Your task to perform on an android device: Open settings on Google Maps Image 0: 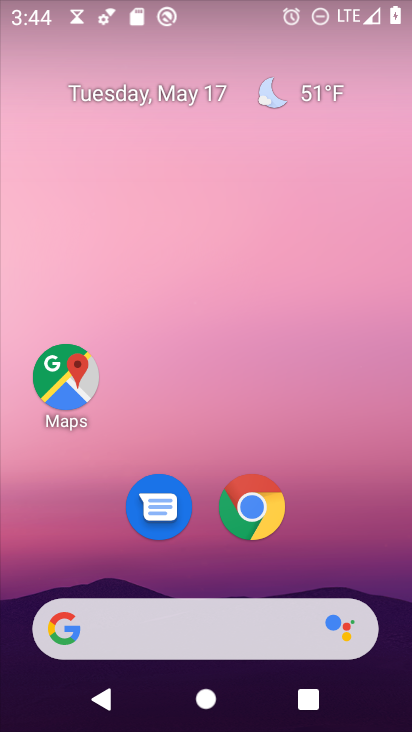
Step 0: click (65, 376)
Your task to perform on an android device: Open settings on Google Maps Image 1: 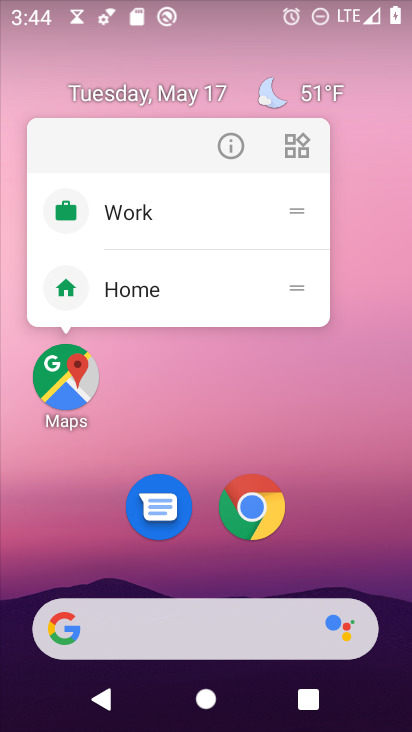
Step 1: click (48, 379)
Your task to perform on an android device: Open settings on Google Maps Image 2: 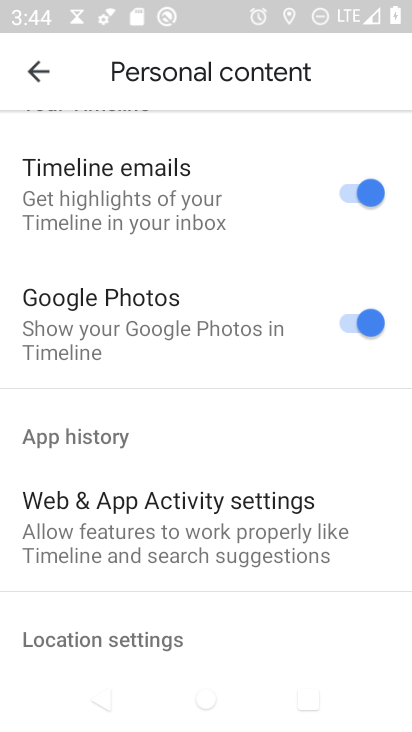
Step 2: click (32, 85)
Your task to perform on an android device: Open settings on Google Maps Image 3: 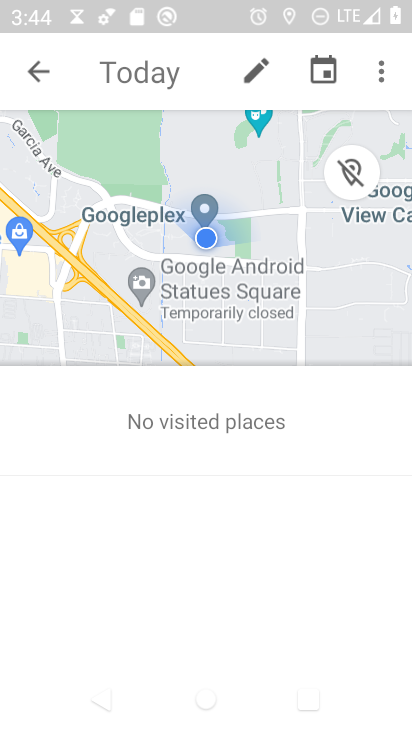
Step 3: click (25, 73)
Your task to perform on an android device: Open settings on Google Maps Image 4: 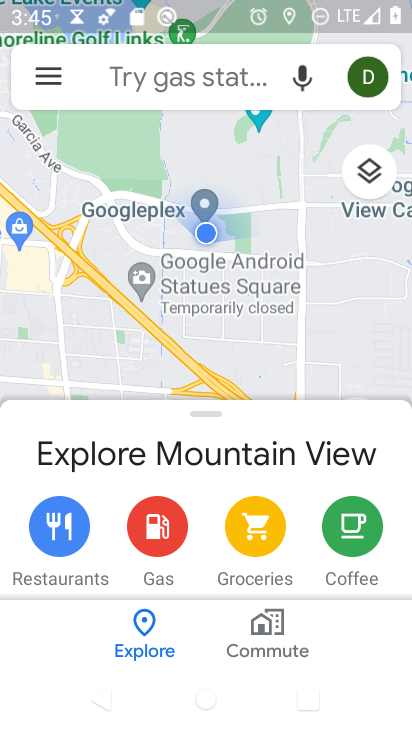
Step 4: click (38, 80)
Your task to perform on an android device: Open settings on Google Maps Image 5: 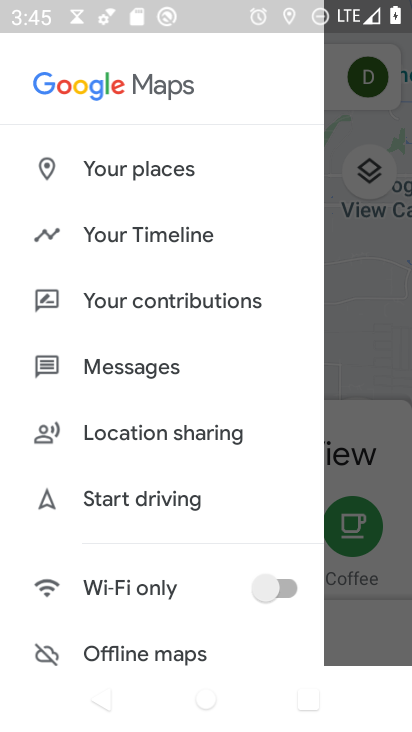
Step 5: drag from (149, 589) to (141, 308)
Your task to perform on an android device: Open settings on Google Maps Image 6: 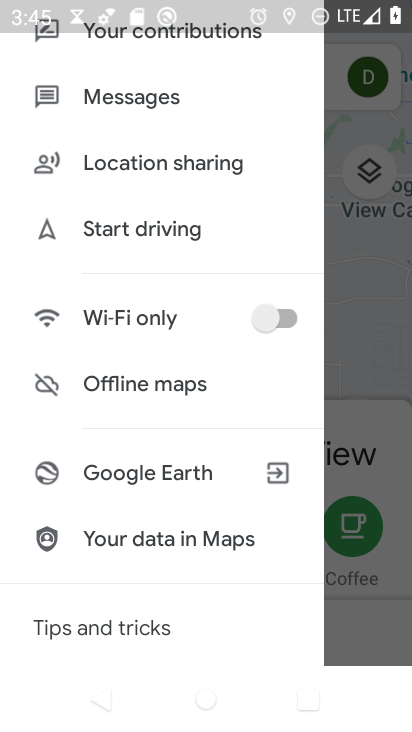
Step 6: drag from (145, 597) to (96, 358)
Your task to perform on an android device: Open settings on Google Maps Image 7: 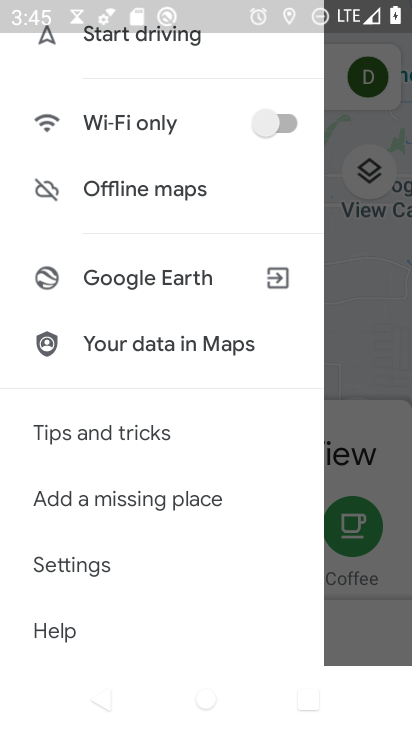
Step 7: click (104, 567)
Your task to perform on an android device: Open settings on Google Maps Image 8: 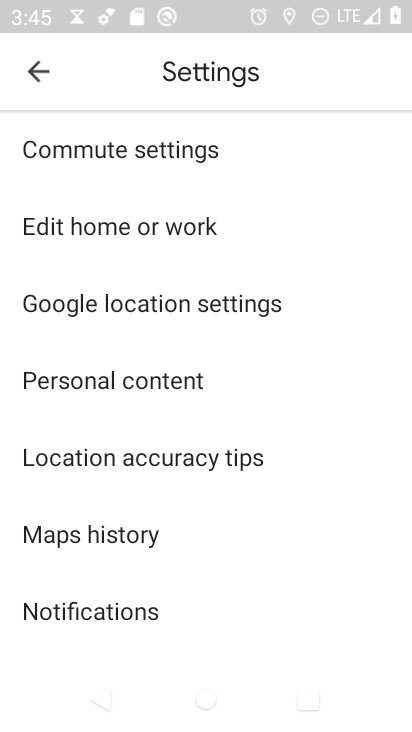
Step 8: task complete